Your task to perform on an android device: Open Youtube and go to "Your channel" Image 0: 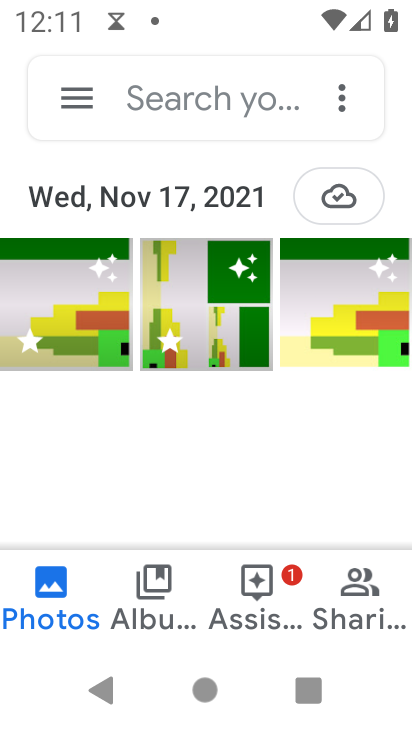
Step 0: press home button
Your task to perform on an android device: Open Youtube and go to "Your channel" Image 1: 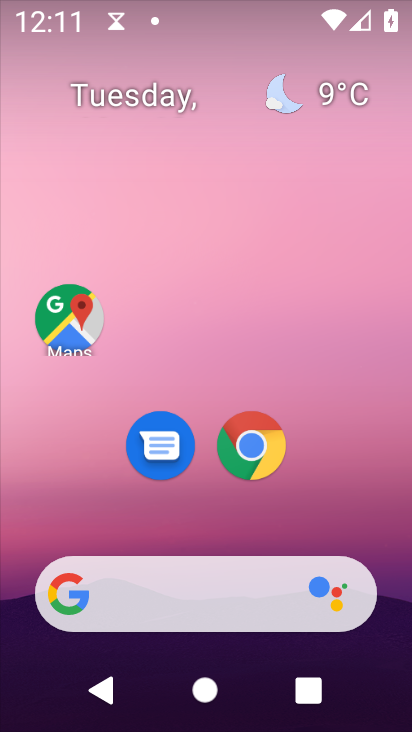
Step 1: drag from (329, 587) to (295, 3)
Your task to perform on an android device: Open Youtube and go to "Your channel" Image 2: 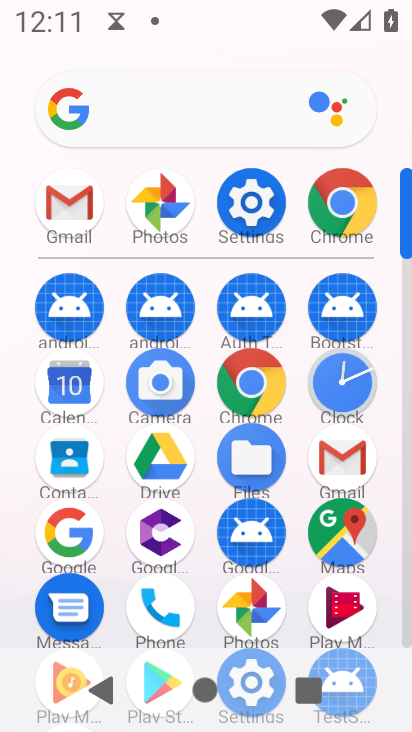
Step 2: drag from (297, 620) to (266, 221)
Your task to perform on an android device: Open Youtube and go to "Your channel" Image 3: 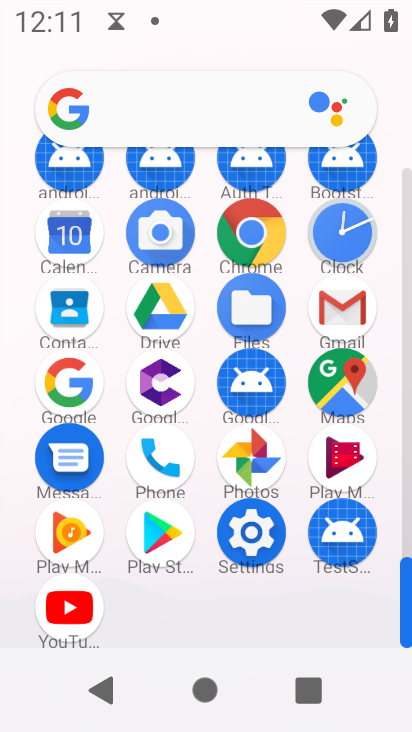
Step 3: click (66, 600)
Your task to perform on an android device: Open Youtube and go to "Your channel" Image 4: 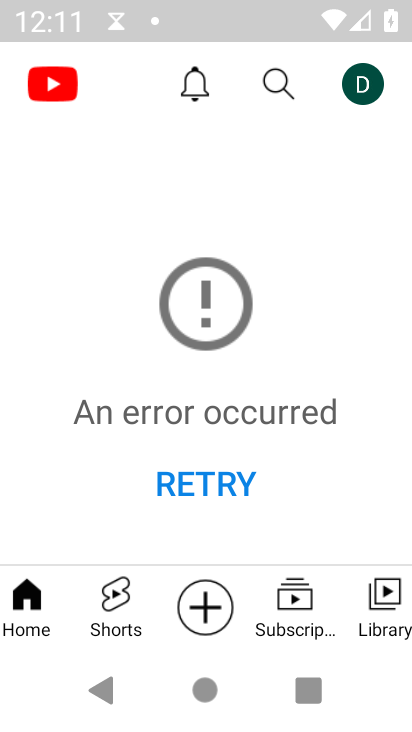
Step 4: click (368, 90)
Your task to perform on an android device: Open Youtube and go to "Your channel" Image 5: 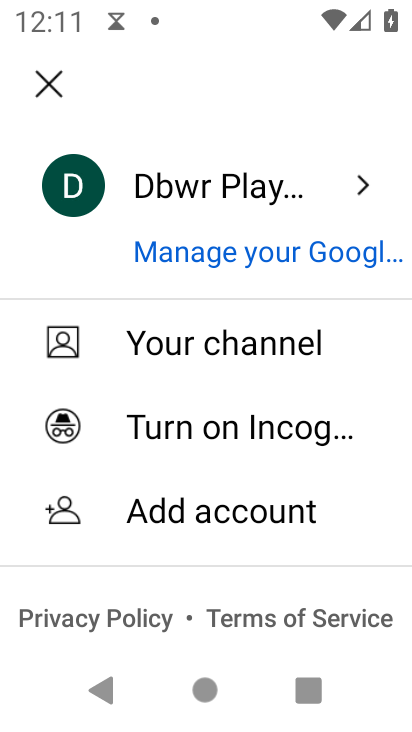
Step 5: click (254, 347)
Your task to perform on an android device: Open Youtube and go to "Your channel" Image 6: 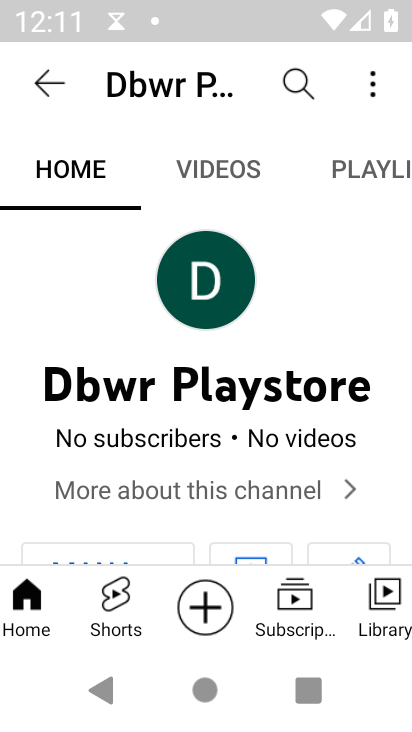
Step 6: task complete